Your task to perform on an android device: Is it going to rain tomorrow? Image 0: 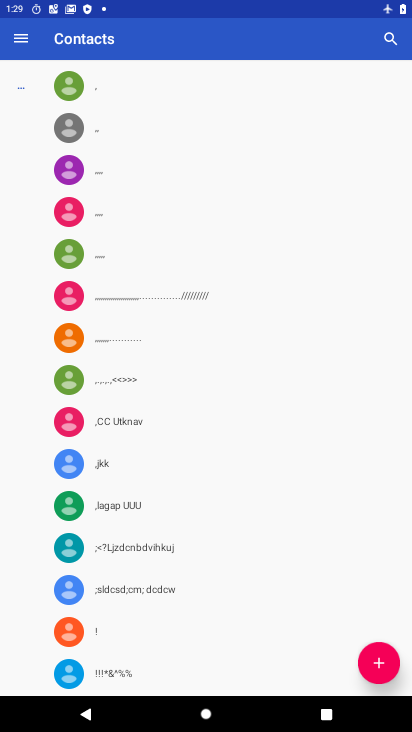
Step 0: press home button
Your task to perform on an android device: Is it going to rain tomorrow? Image 1: 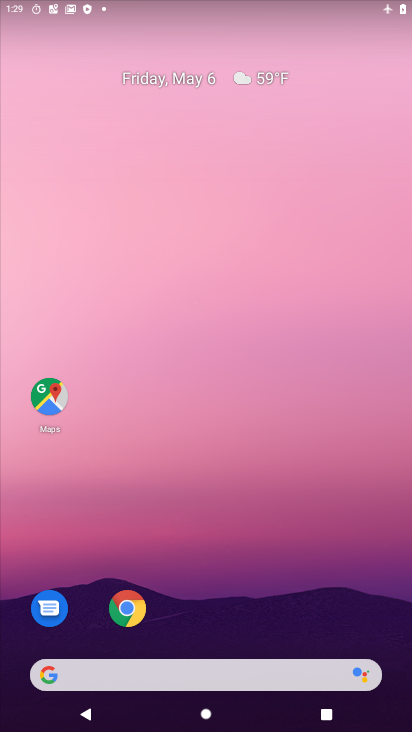
Step 1: click (126, 609)
Your task to perform on an android device: Is it going to rain tomorrow? Image 2: 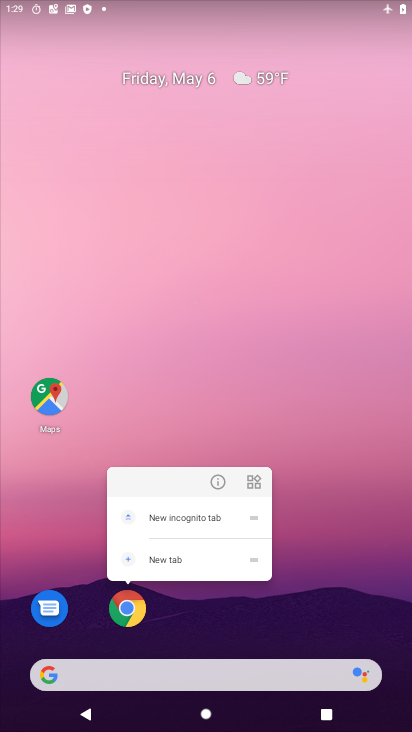
Step 2: click (215, 488)
Your task to perform on an android device: Is it going to rain tomorrow? Image 3: 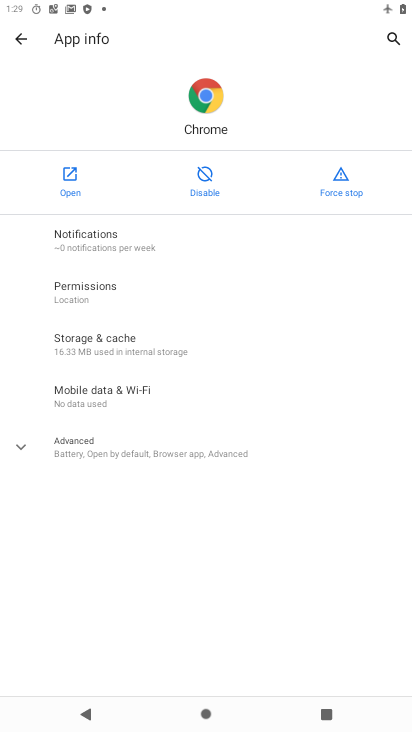
Step 3: click (84, 182)
Your task to perform on an android device: Is it going to rain tomorrow? Image 4: 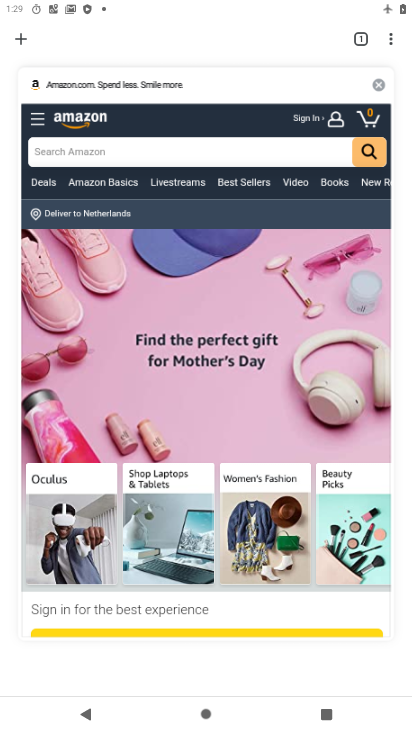
Step 4: click (259, 91)
Your task to perform on an android device: Is it going to rain tomorrow? Image 5: 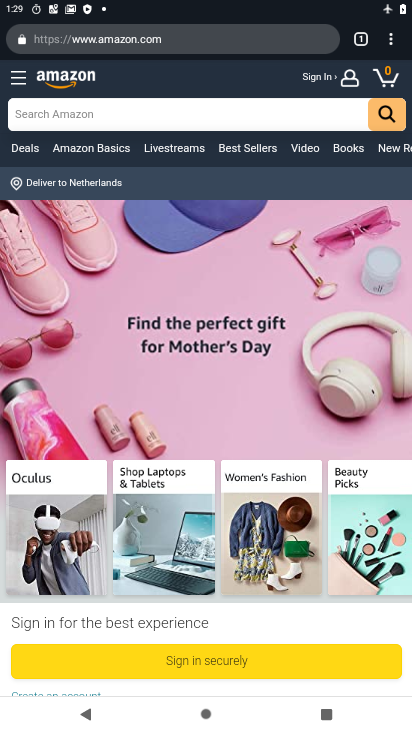
Step 5: click (127, 36)
Your task to perform on an android device: Is it going to rain tomorrow? Image 6: 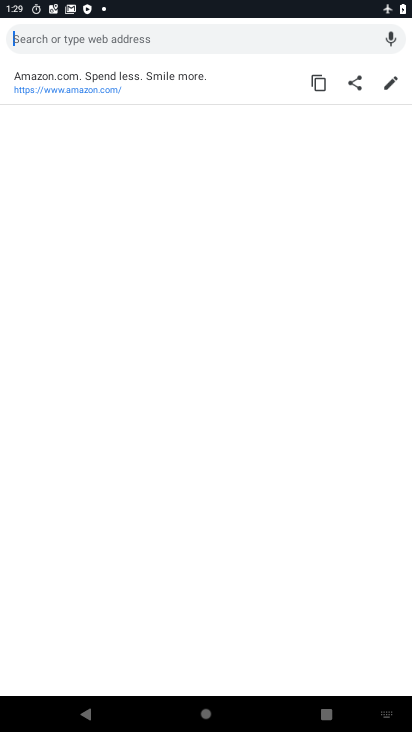
Step 6: type "is it going to rain tomorrow?"
Your task to perform on an android device: Is it going to rain tomorrow? Image 7: 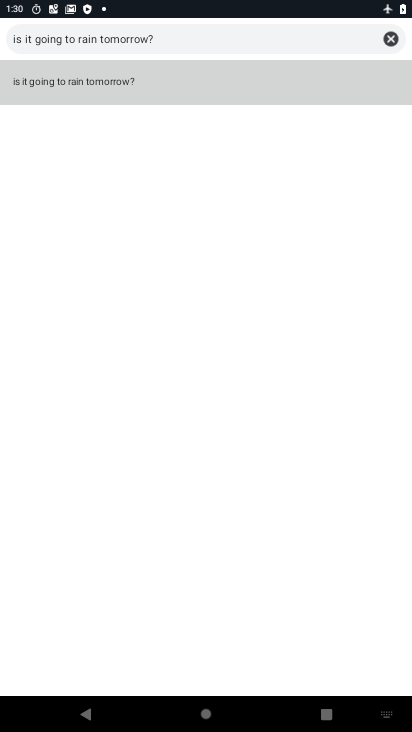
Step 7: click (110, 101)
Your task to perform on an android device: Is it going to rain tomorrow? Image 8: 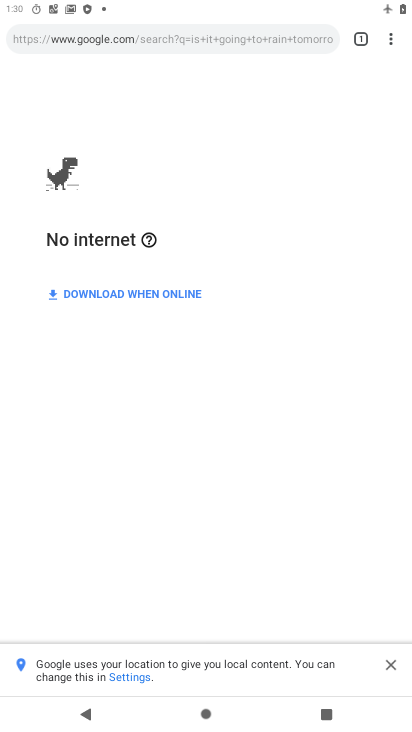
Step 8: task complete